Your task to perform on an android device: Go to ESPN.com Image 0: 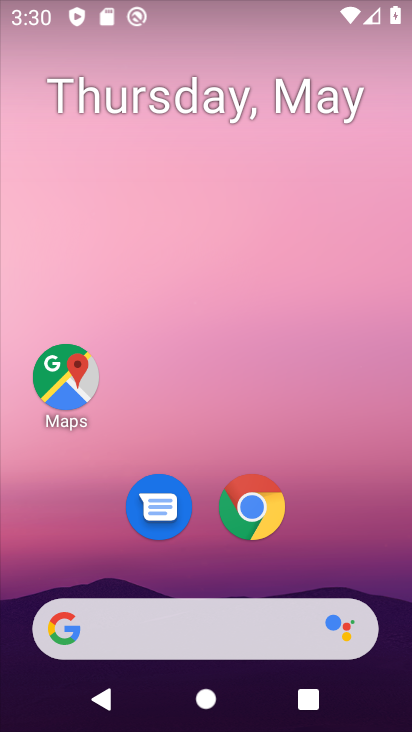
Step 0: click (260, 506)
Your task to perform on an android device: Go to ESPN.com Image 1: 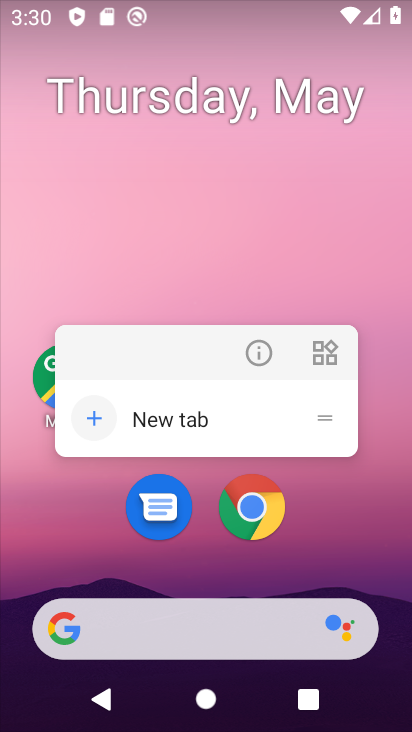
Step 1: click (242, 490)
Your task to perform on an android device: Go to ESPN.com Image 2: 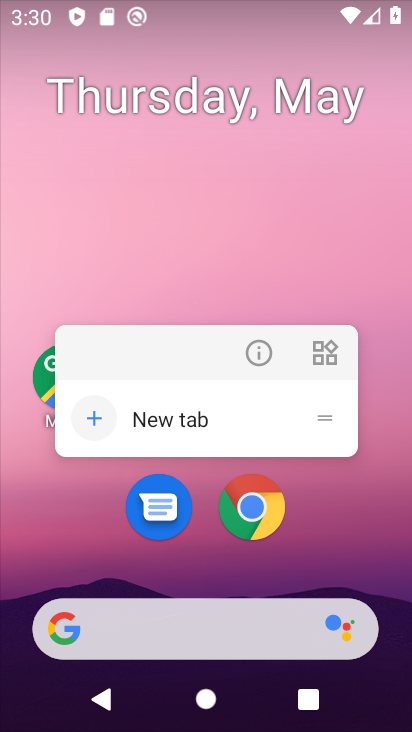
Step 2: click (246, 500)
Your task to perform on an android device: Go to ESPN.com Image 3: 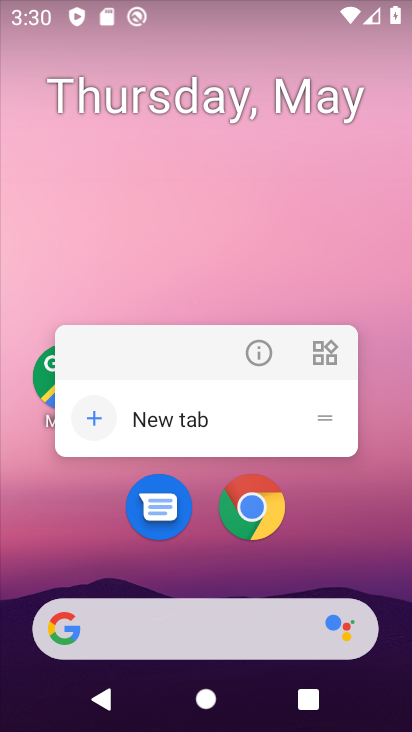
Step 3: click (246, 501)
Your task to perform on an android device: Go to ESPN.com Image 4: 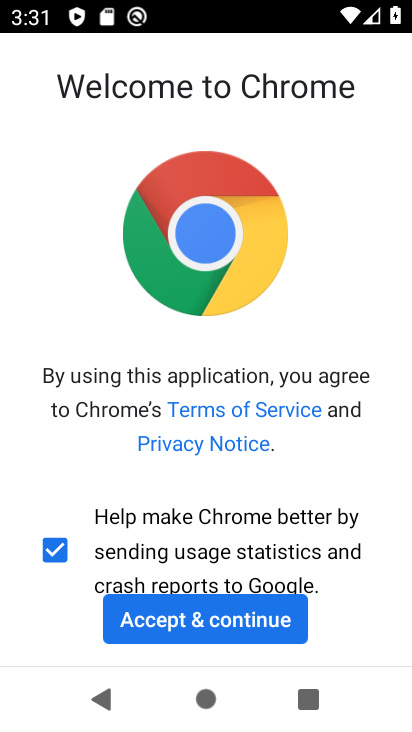
Step 4: click (175, 630)
Your task to perform on an android device: Go to ESPN.com Image 5: 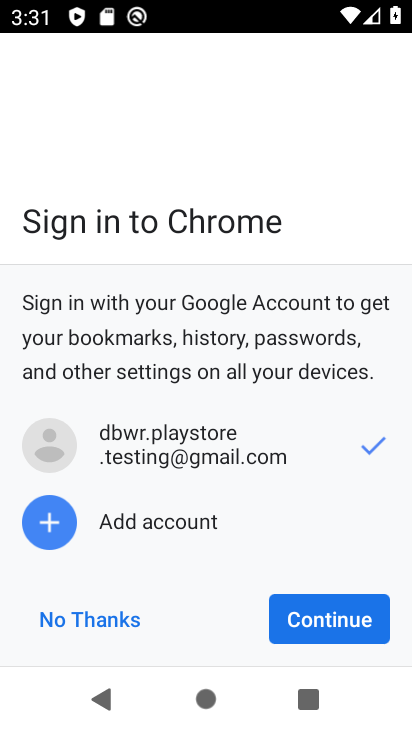
Step 5: click (331, 621)
Your task to perform on an android device: Go to ESPN.com Image 6: 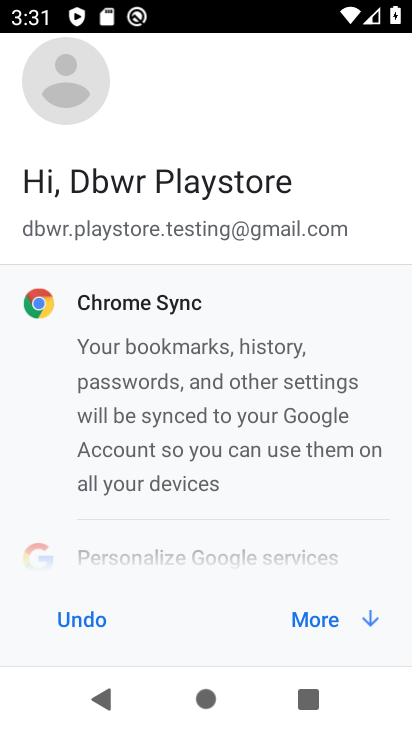
Step 6: click (315, 610)
Your task to perform on an android device: Go to ESPN.com Image 7: 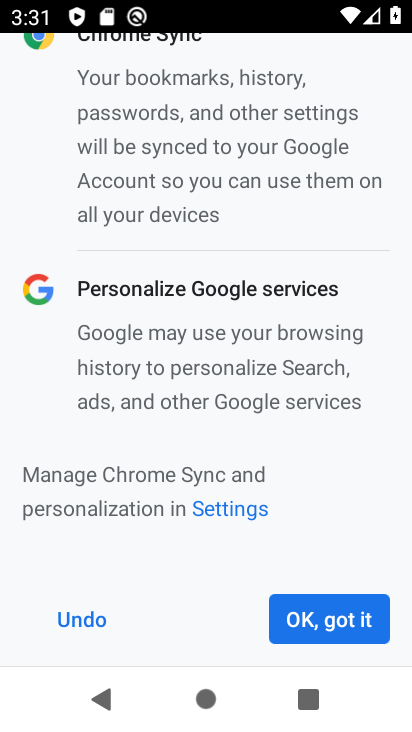
Step 7: click (315, 610)
Your task to perform on an android device: Go to ESPN.com Image 8: 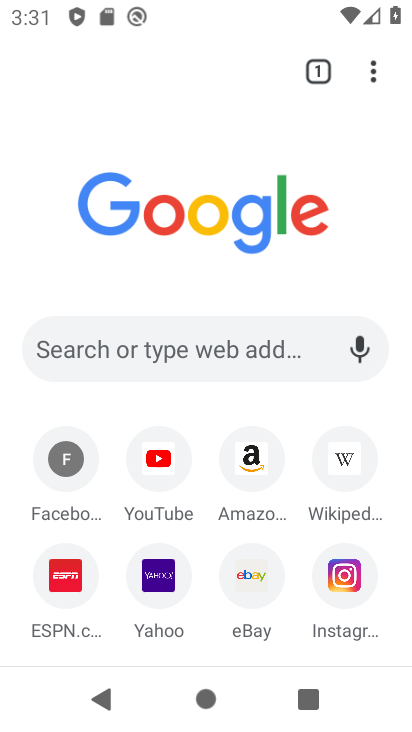
Step 8: click (58, 587)
Your task to perform on an android device: Go to ESPN.com Image 9: 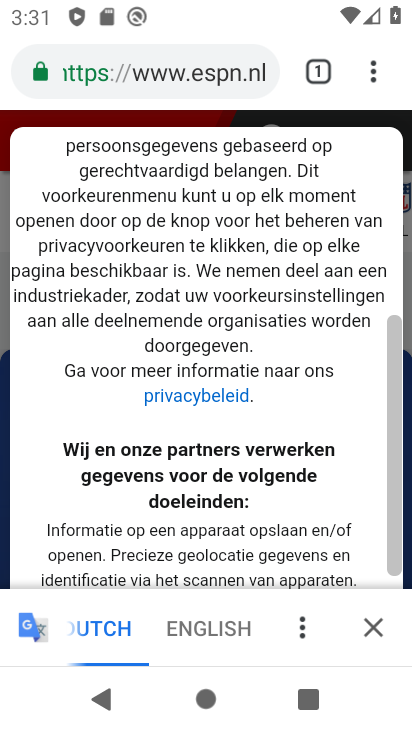
Step 9: task complete